Your task to perform on an android device: When is my next meeting? Image 0: 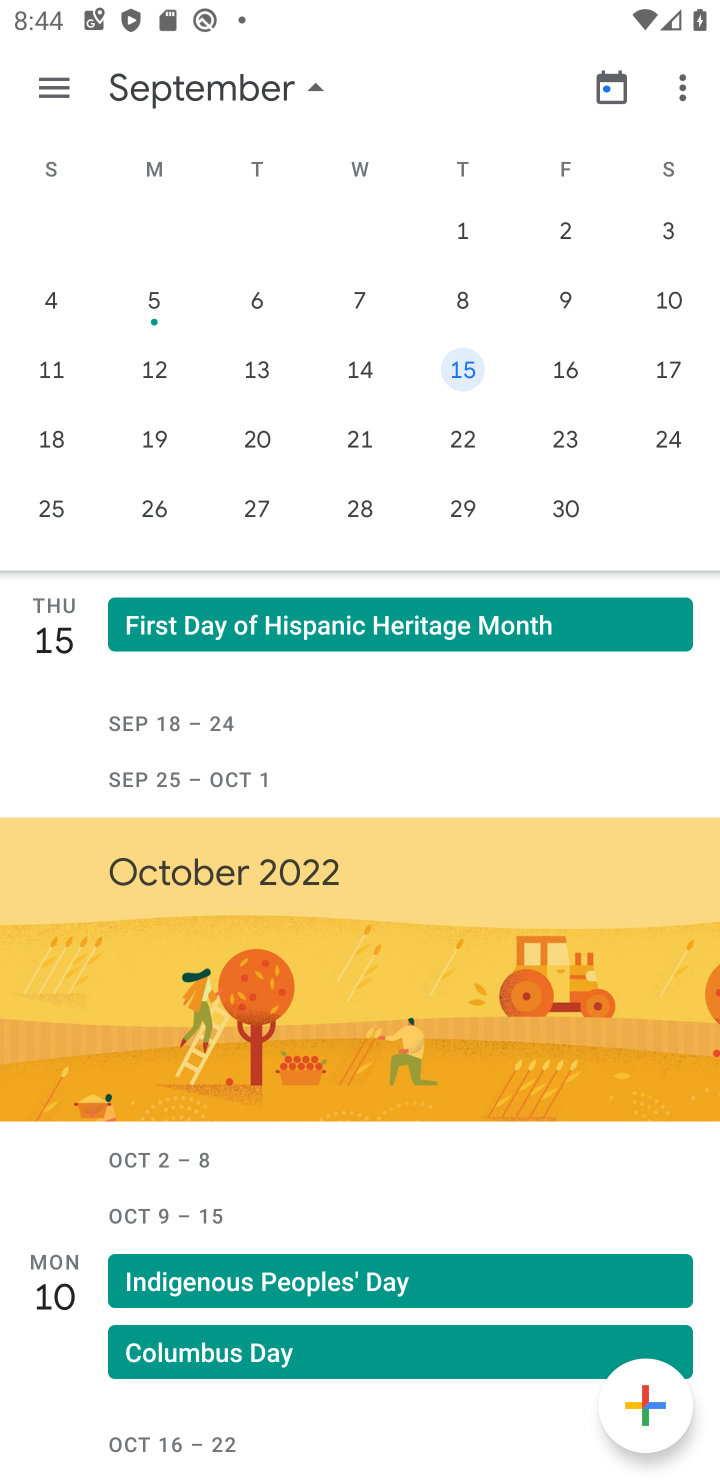
Step 0: drag from (381, 1317) to (389, 410)
Your task to perform on an android device: When is my next meeting? Image 1: 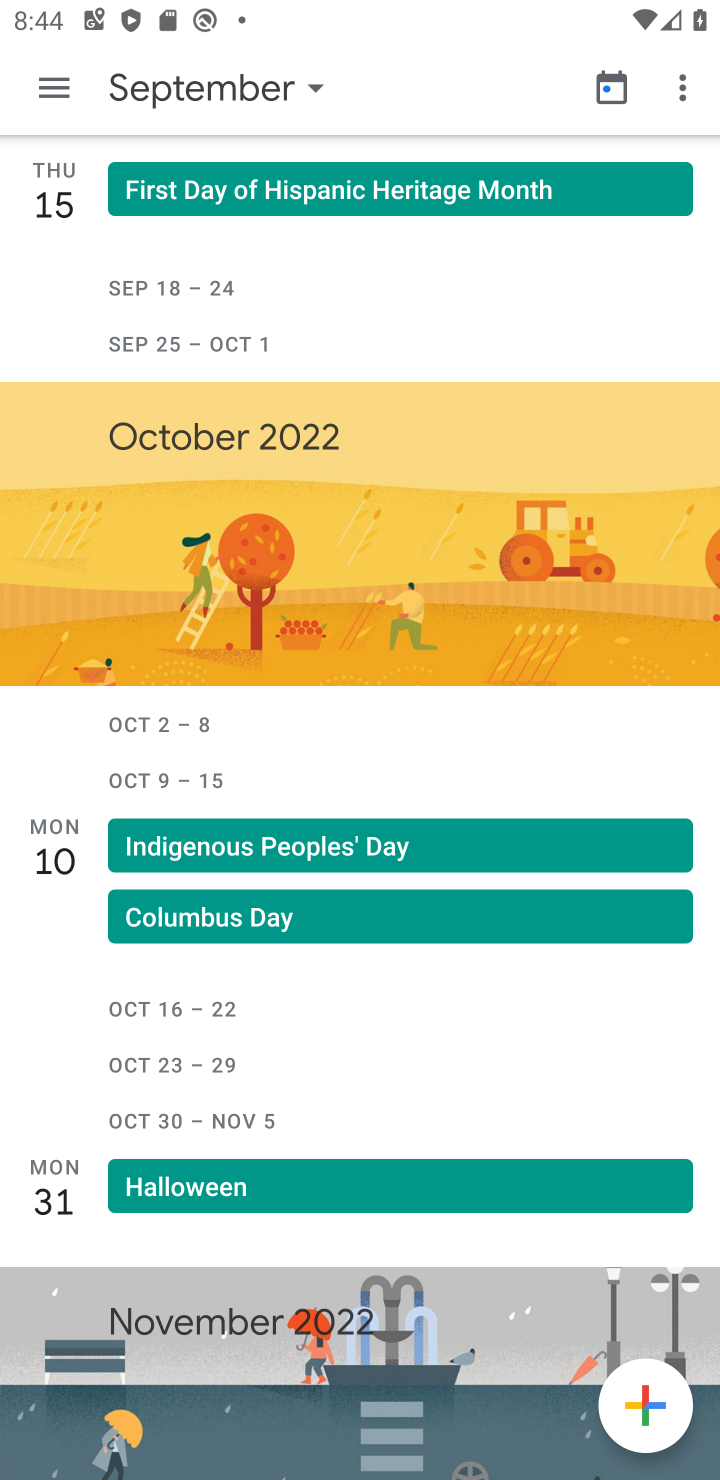
Step 1: click (214, 102)
Your task to perform on an android device: When is my next meeting? Image 2: 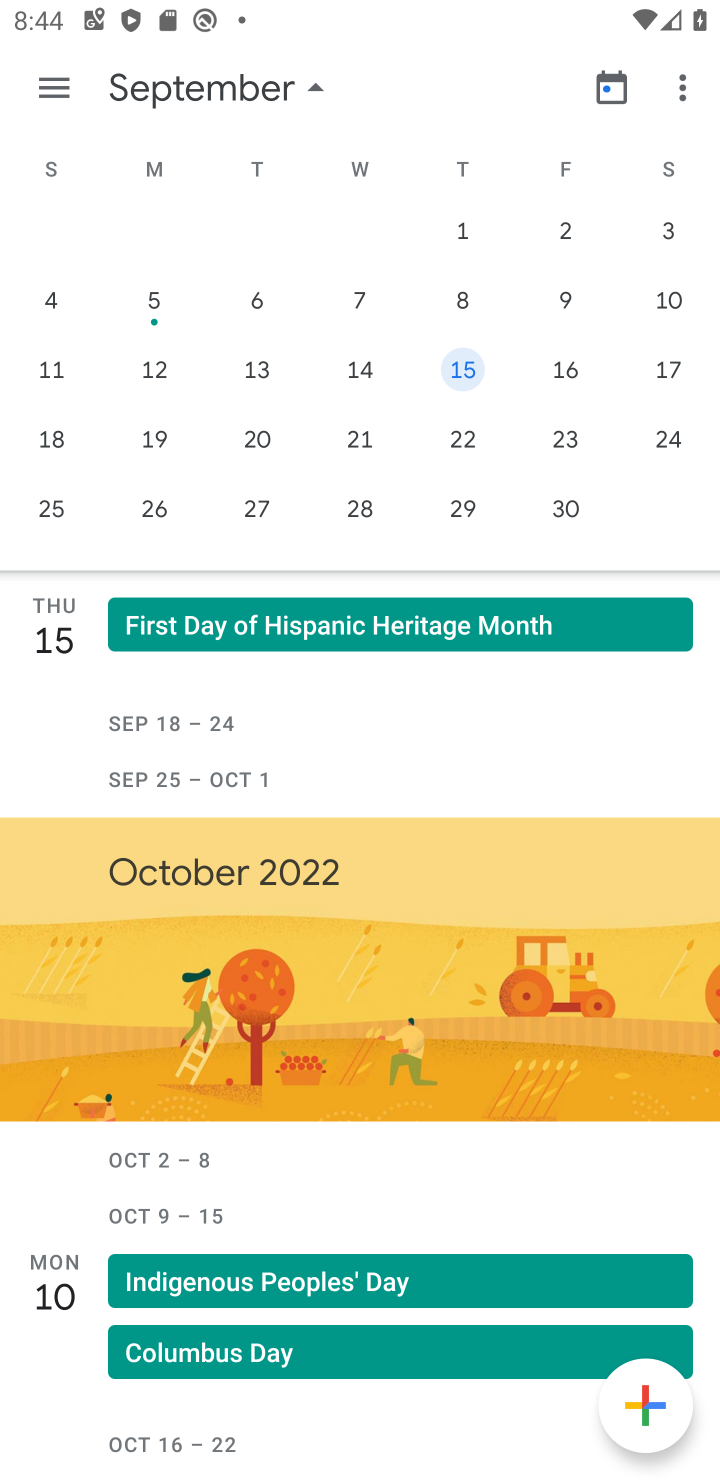
Step 2: drag from (26, 412) to (687, 454)
Your task to perform on an android device: When is my next meeting? Image 3: 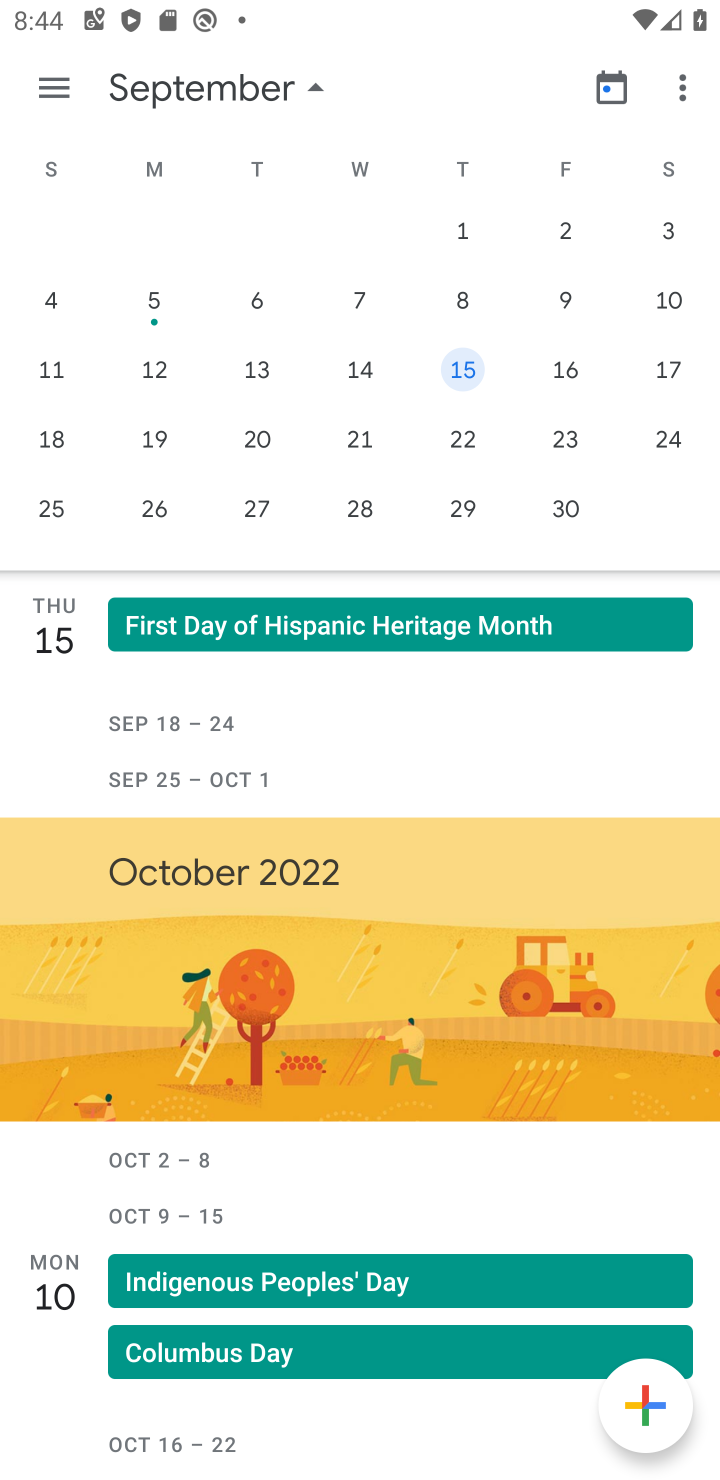
Step 3: drag from (29, 536) to (677, 510)
Your task to perform on an android device: When is my next meeting? Image 4: 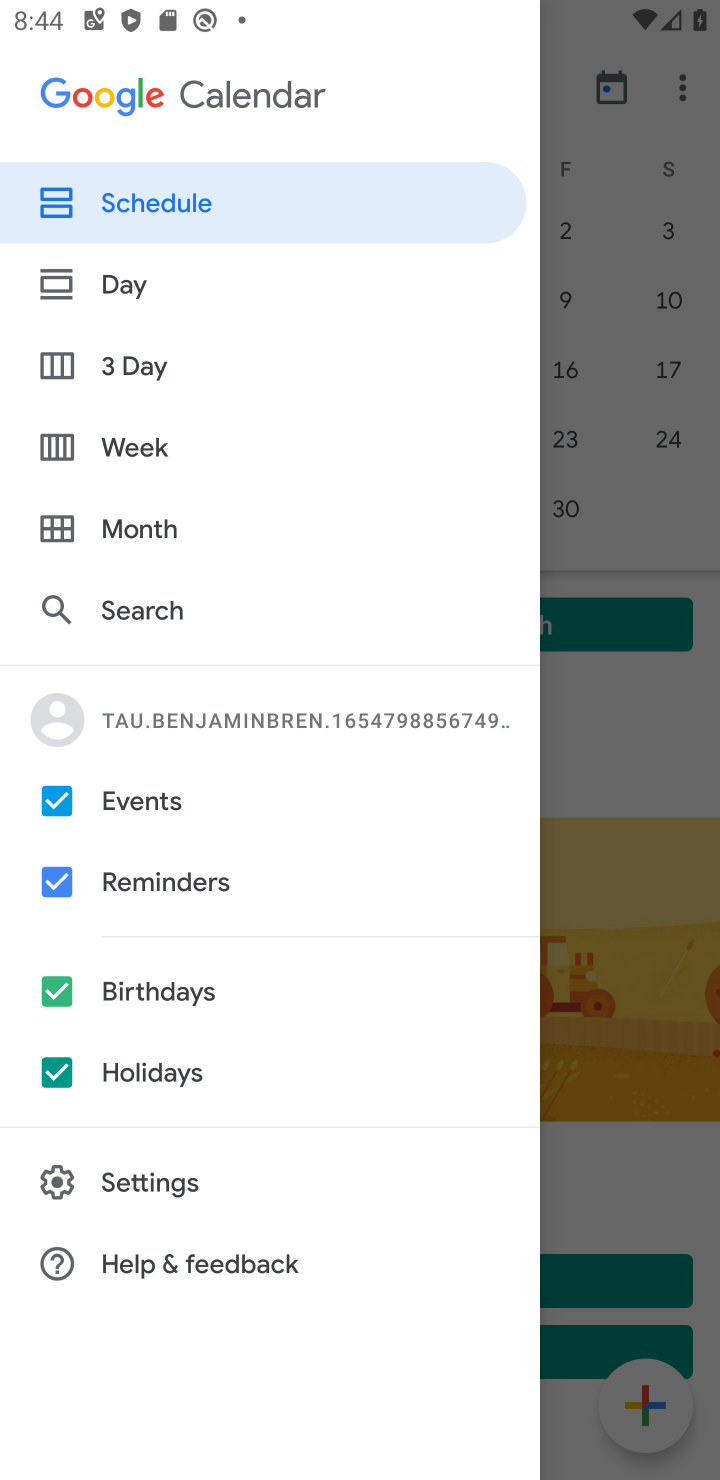
Step 4: click (648, 360)
Your task to perform on an android device: When is my next meeting? Image 5: 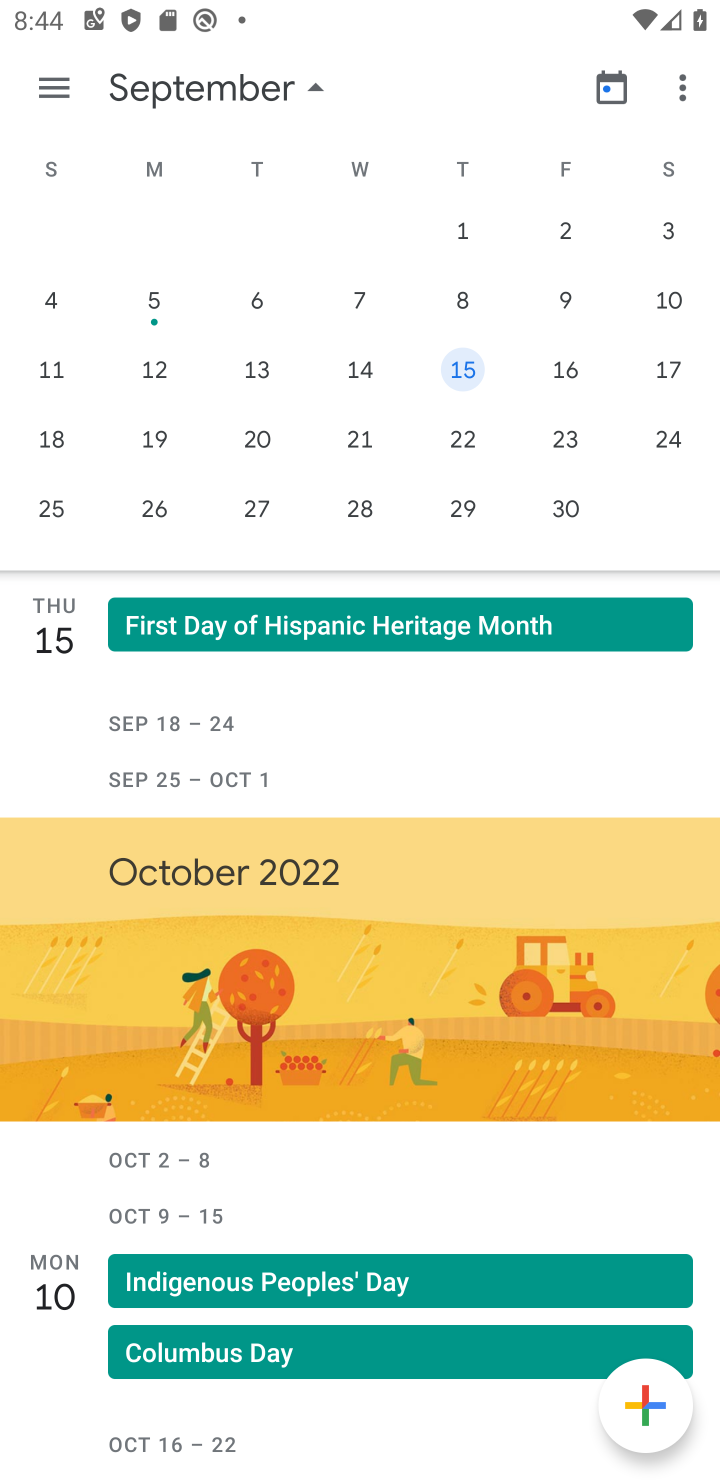
Step 5: task complete